Your task to perform on an android device: Go to display settings Image 0: 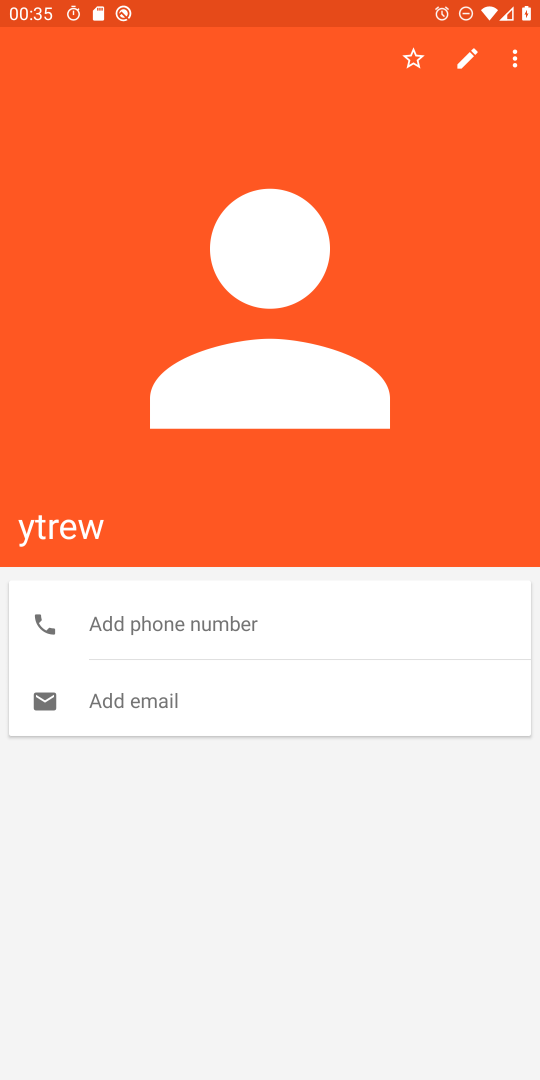
Step 0: press home button
Your task to perform on an android device: Go to display settings Image 1: 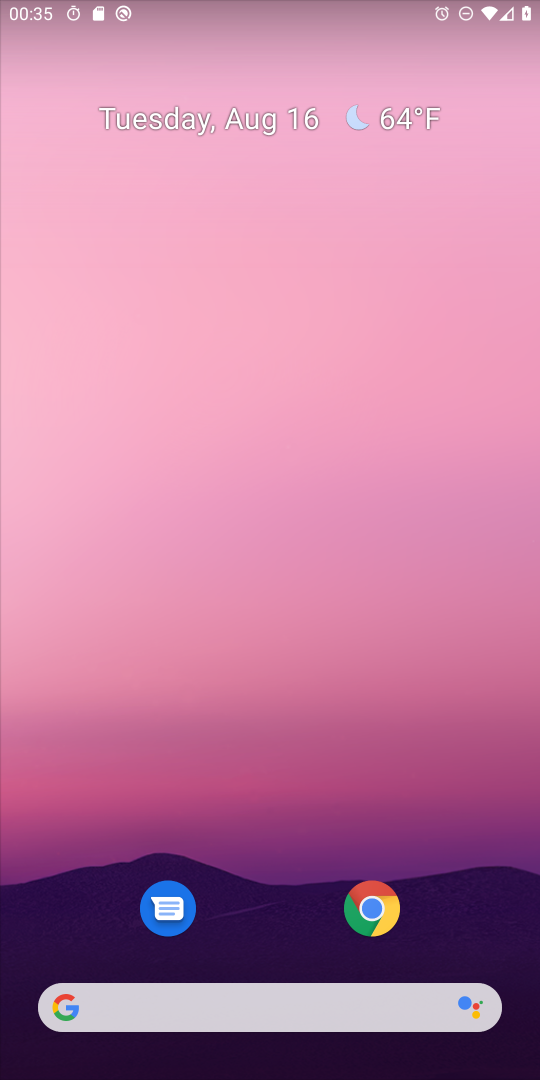
Step 1: drag from (290, 939) to (221, 343)
Your task to perform on an android device: Go to display settings Image 2: 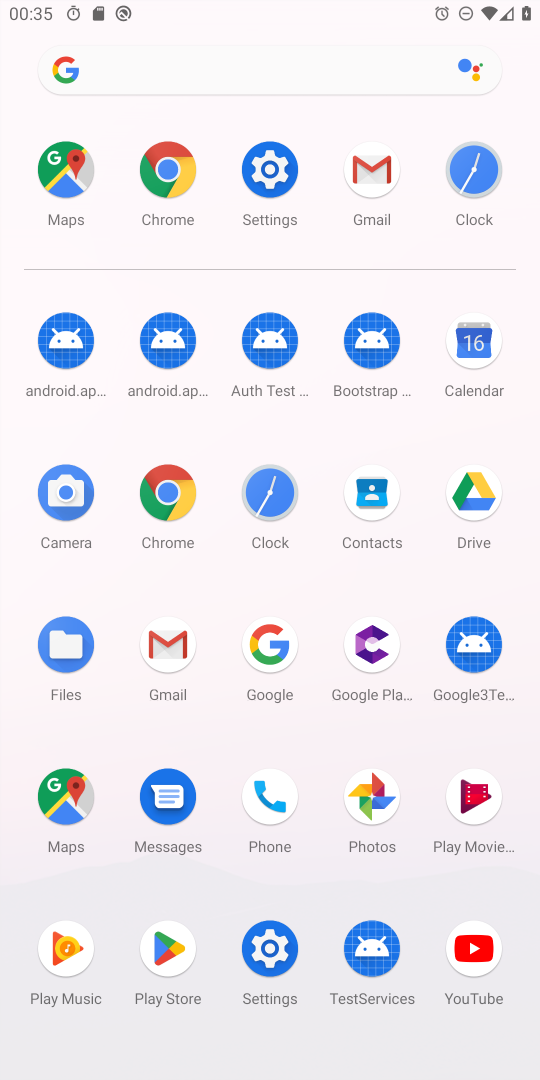
Step 2: click (291, 179)
Your task to perform on an android device: Go to display settings Image 3: 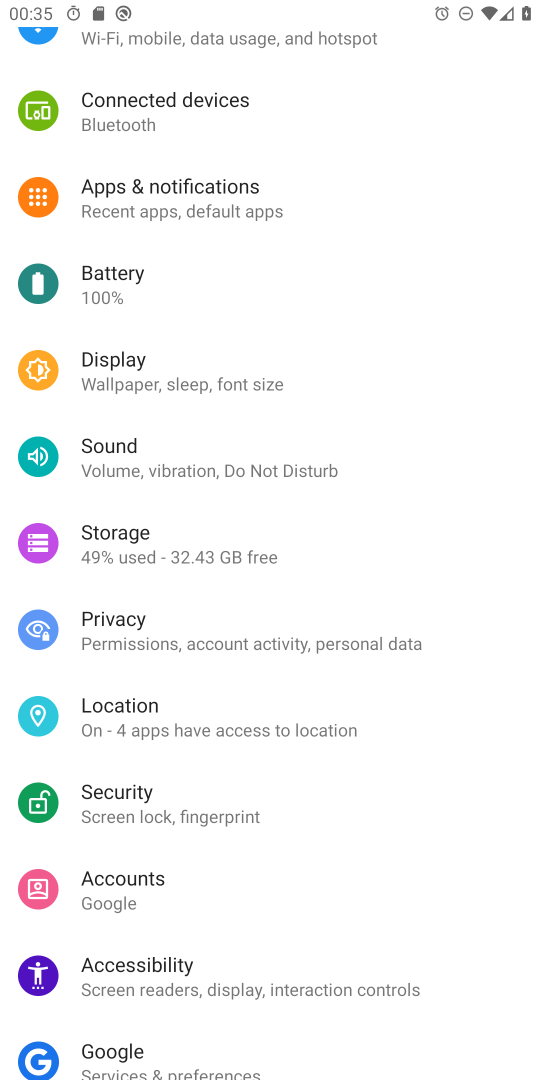
Step 3: click (130, 349)
Your task to perform on an android device: Go to display settings Image 4: 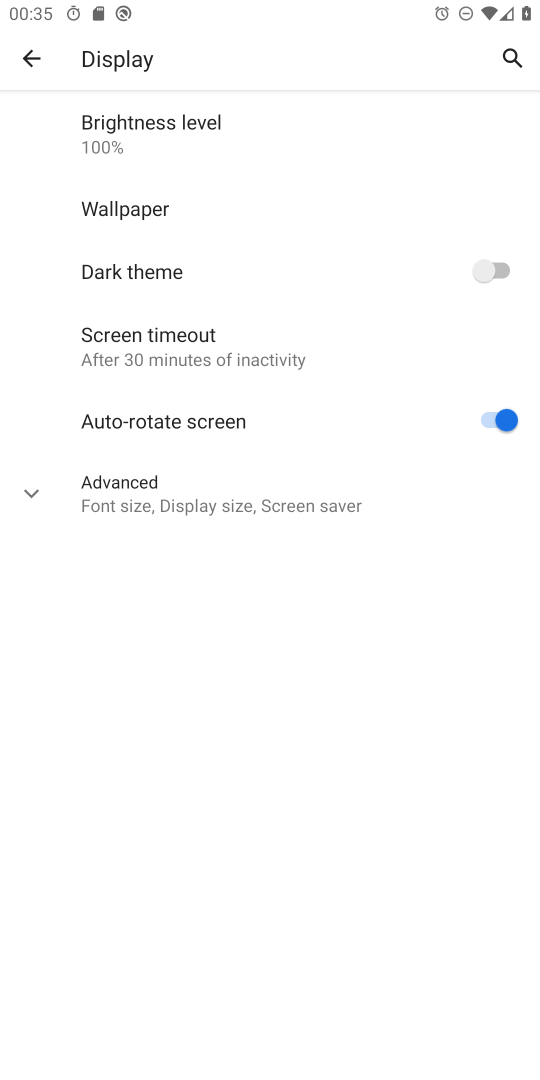
Step 4: task complete